Your task to perform on an android device: check storage Image 0: 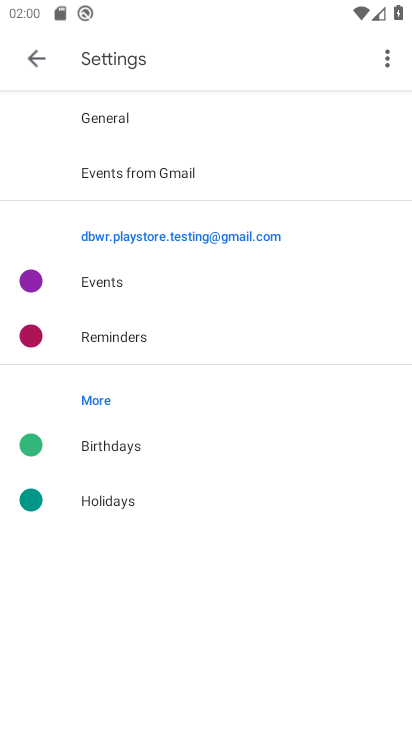
Step 0: press home button
Your task to perform on an android device: check storage Image 1: 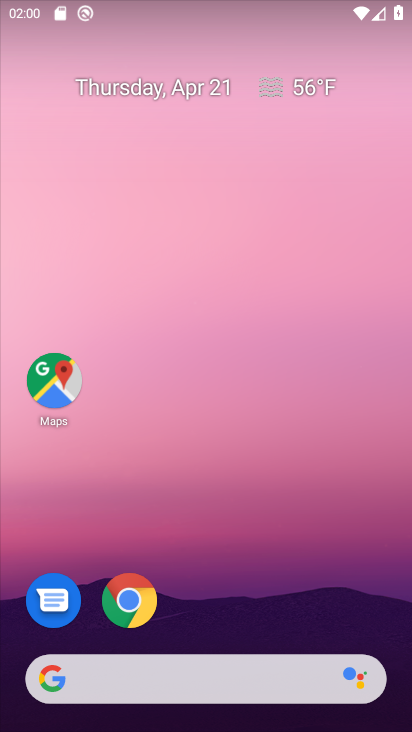
Step 1: drag from (284, 504) to (328, 113)
Your task to perform on an android device: check storage Image 2: 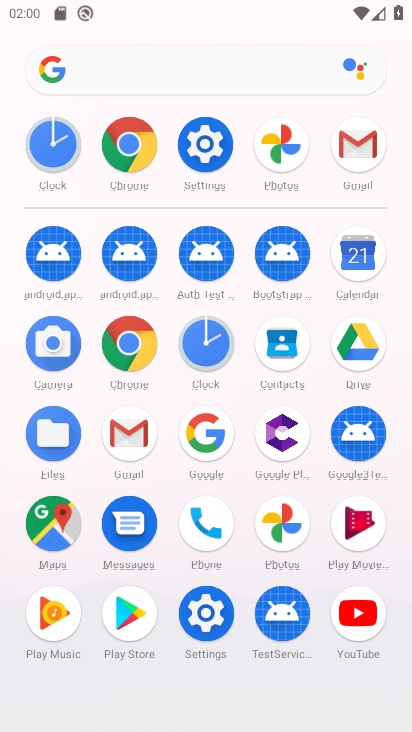
Step 2: click (207, 135)
Your task to perform on an android device: check storage Image 3: 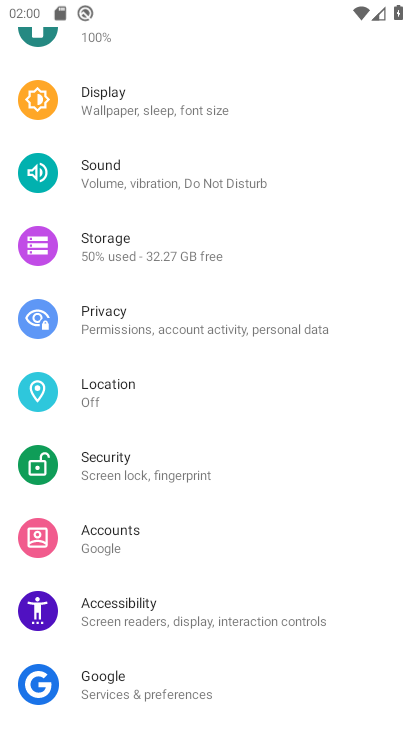
Step 3: drag from (215, 290) to (207, 582)
Your task to perform on an android device: check storage Image 4: 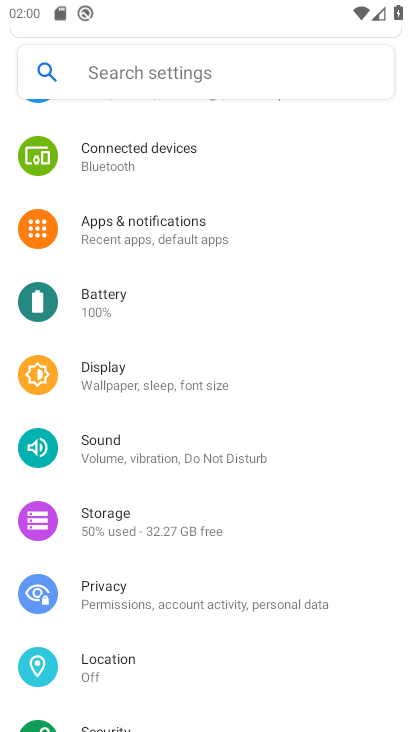
Step 4: click (203, 520)
Your task to perform on an android device: check storage Image 5: 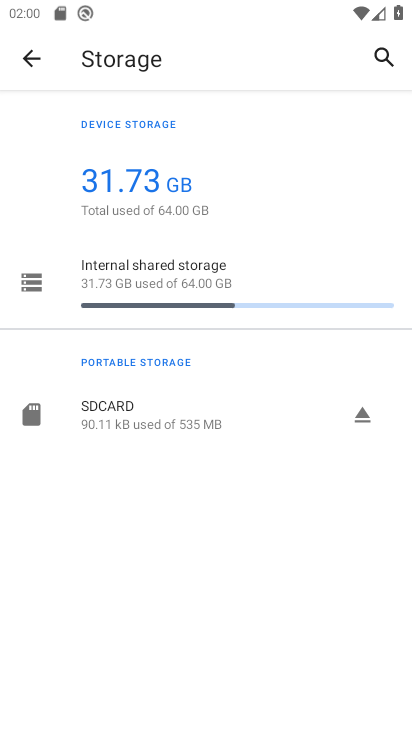
Step 5: task complete